Your task to perform on an android device: turn on data saver in the chrome app Image 0: 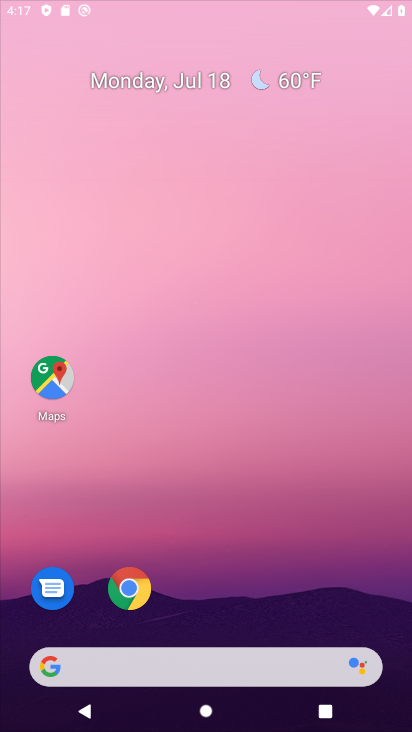
Step 0: press home button
Your task to perform on an android device: turn on data saver in the chrome app Image 1: 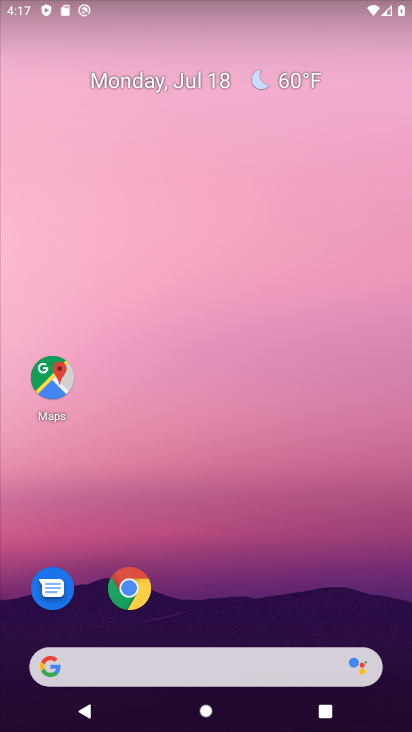
Step 1: drag from (204, 632) to (192, 85)
Your task to perform on an android device: turn on data saver in the chrome app Image 2: 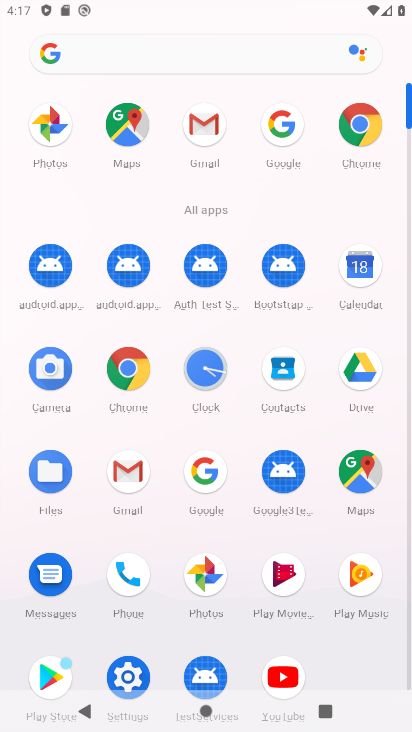
Step 2: click (124, 368)
Your task to perform on an android device: turn on data saver in the chrome app Image 3: 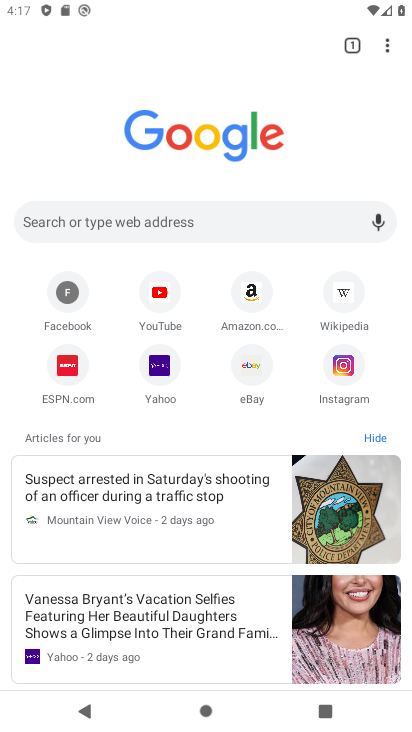
Step 3: click (386, 39)
Your task to perform on an android device: turn on data saver in the chrome app Image 4: 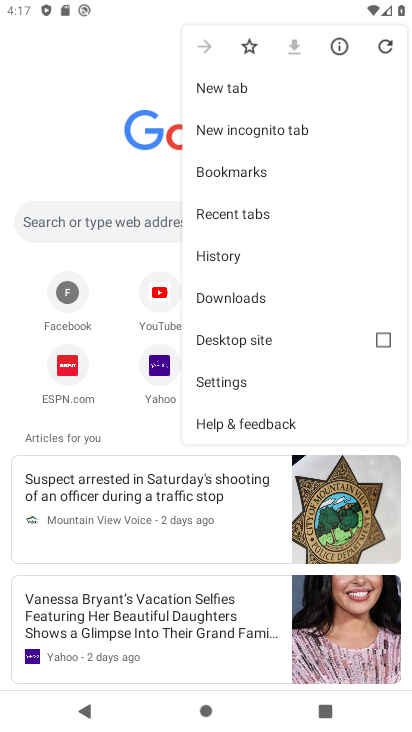
Step 4: click (263, 377)
Your task to perform on an android device: turn on data saver in the chrome app Image 5: 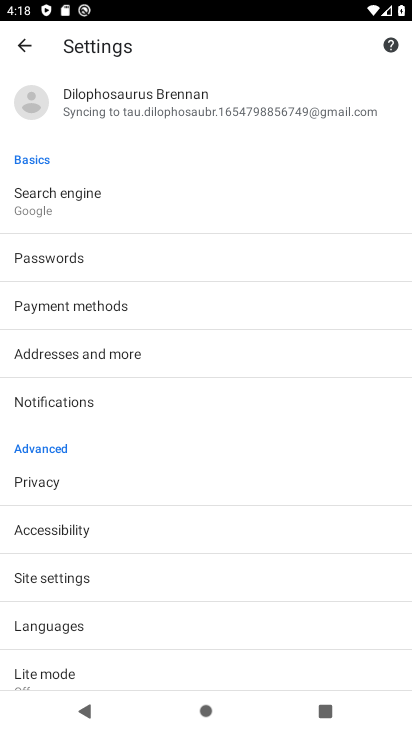
Step 5: click (106, 664)
Your task to perform on an android device: turn on data saver in the chrome app Image 6: 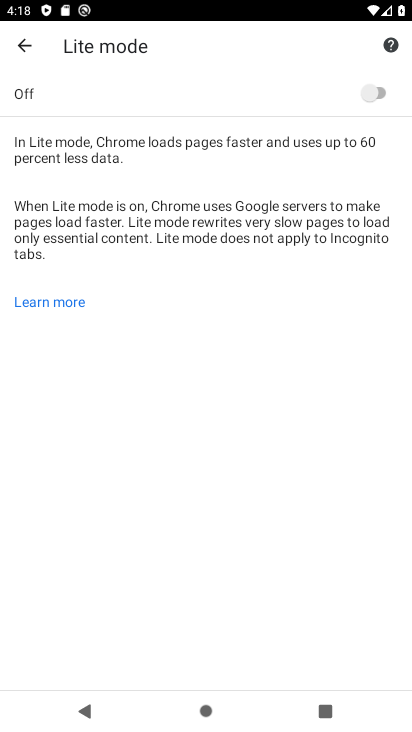
Step 6: click (379, 92)
Your task to perform on an android device: turn on data saver in the chrome app Image 7: 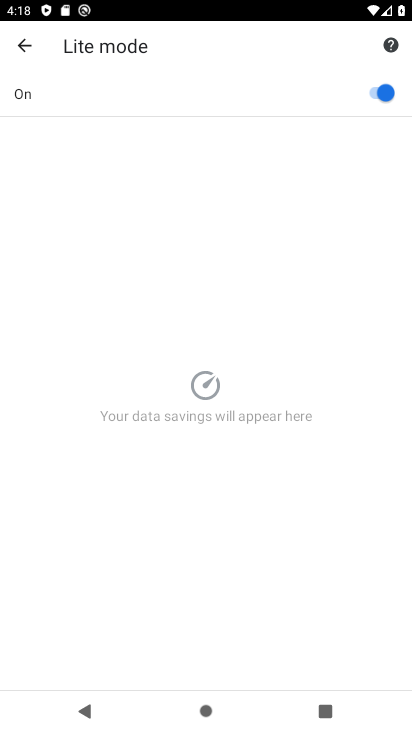
Step 7: task complete